Your task to perform on an android device: Show me recent news Image 0: 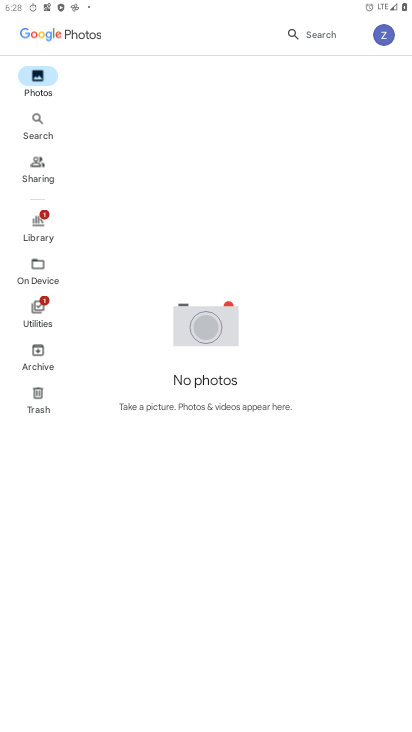
Step 0: press home button
Your task to perform on an android device: Show me recent news Image 1: 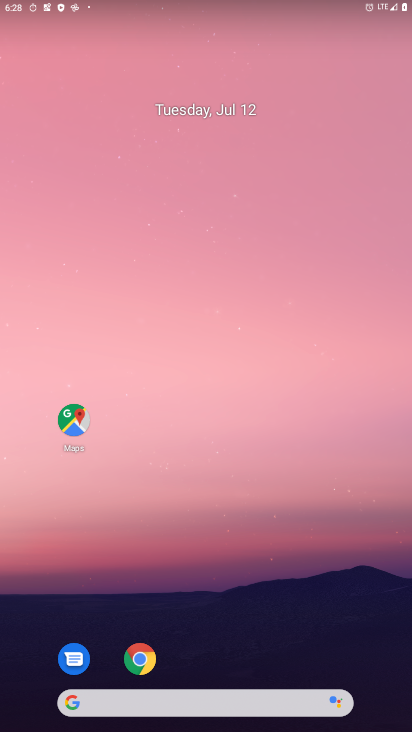
Step 1: click (174, 698)
Your task to perform on an android device: Show me recent news Image 2: 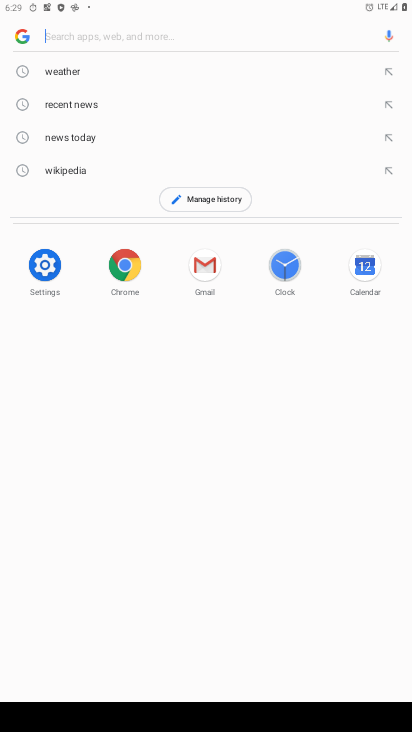
Step 2: click (76, 97)
Your task to perform on an android device: Show me recent news Image 3: 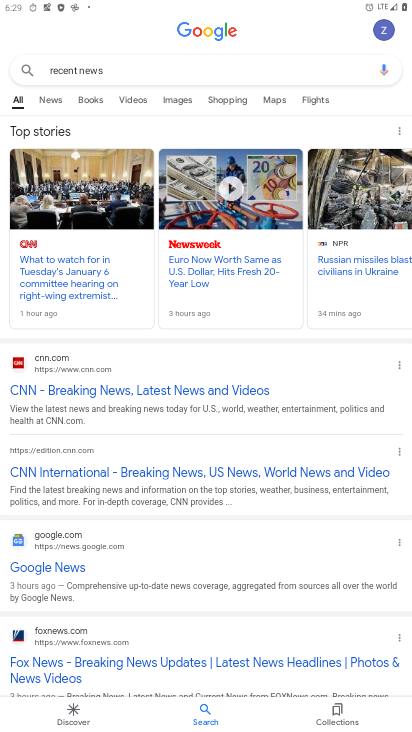
Step 3: task complete